Your task to perform on an android device: all mails in gmail Image 0: 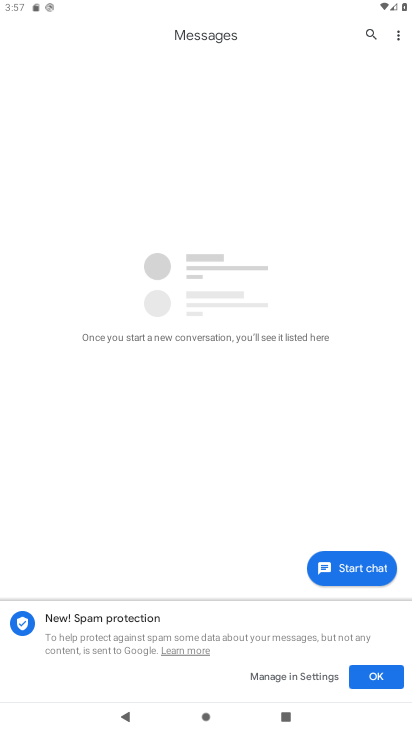
Step 0: press home button
Your task to perform on an android device: all mails in gmail Image 1: 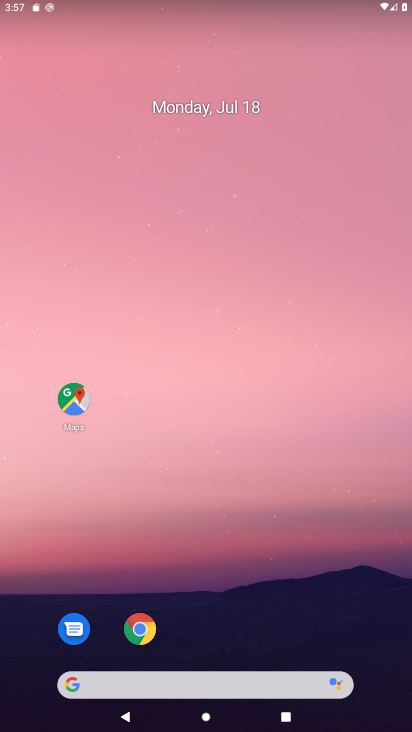
Step 1: drag from (231, 627) to (247, 215)
Your task to perform on an android device: all mails in gmail Image 2: 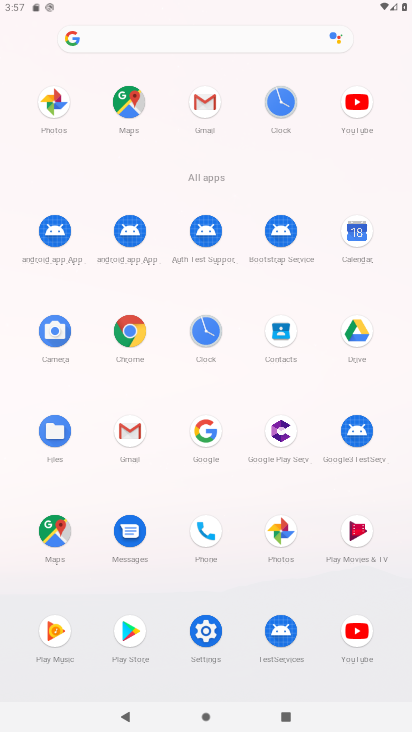
Step 2: click (214, 103)
Your task to perform on an android device: all mails in gmail Image 3: 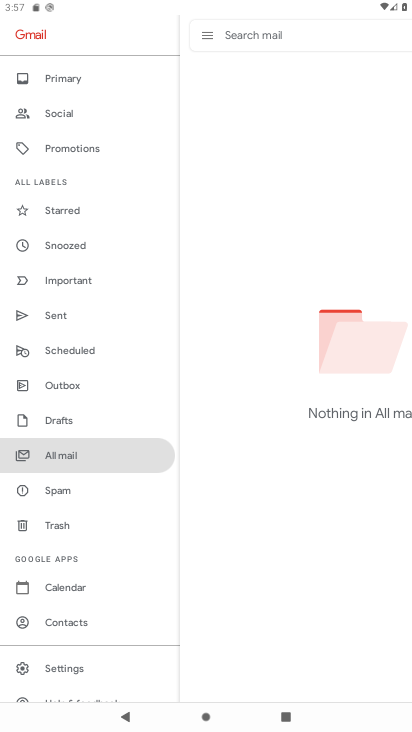
Step 3: click (133, 457)
Your task to perform on an android device: all mails in gmail Image 4: 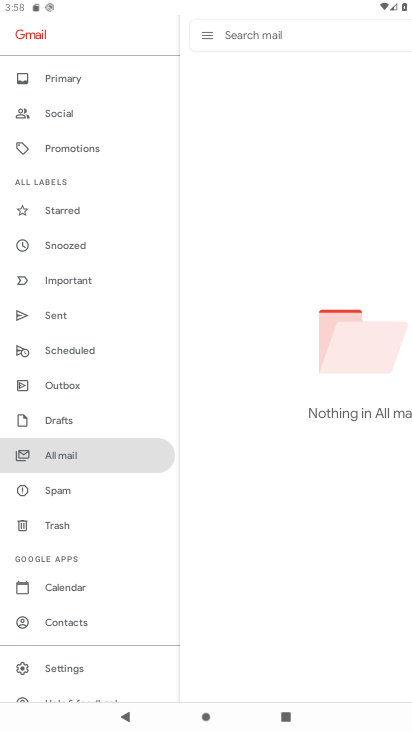
Step 4: task complete